Your task to perform on an android device: refresh tabs in the chrome app Image 0: 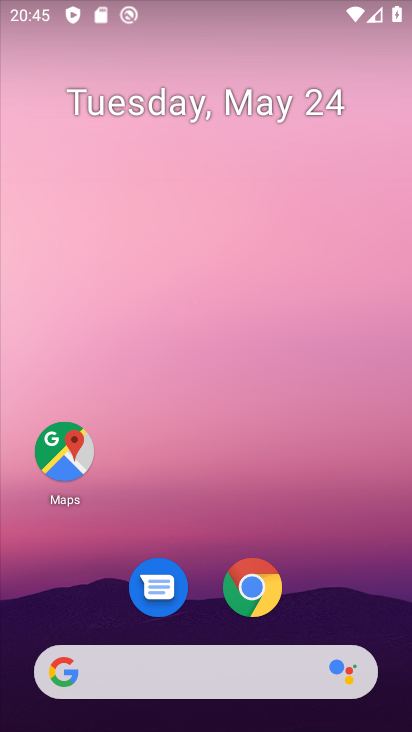
Step 0: drag from (308, 514) to (202, 21)
Your task to perform on an android device: refresh tabs in the chrome app Image 1: 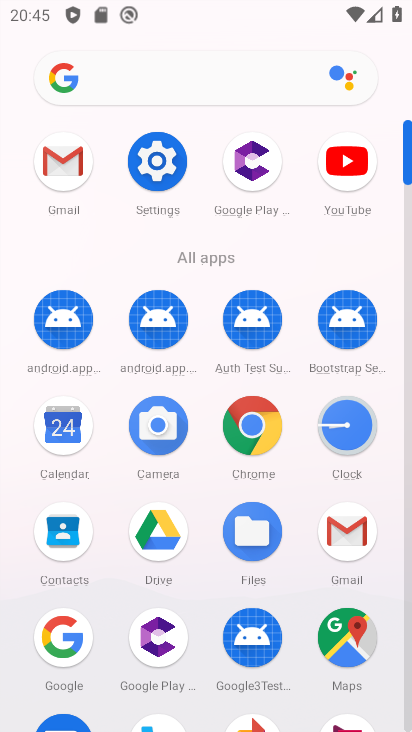
Step 1: drag from (22, 565) to (22, 259)
Your task to perform on an android device: refresh tabs in the chrome app Image 2: 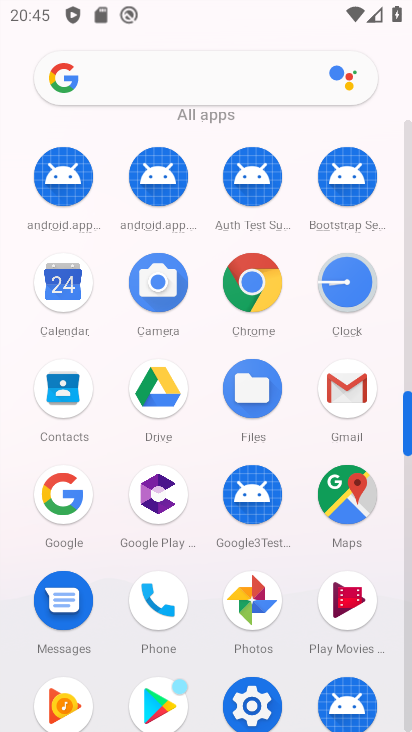
Step 2: click (249, 277)
Your task to perform on an android device: refresh tabs in the chrome app Image 3: 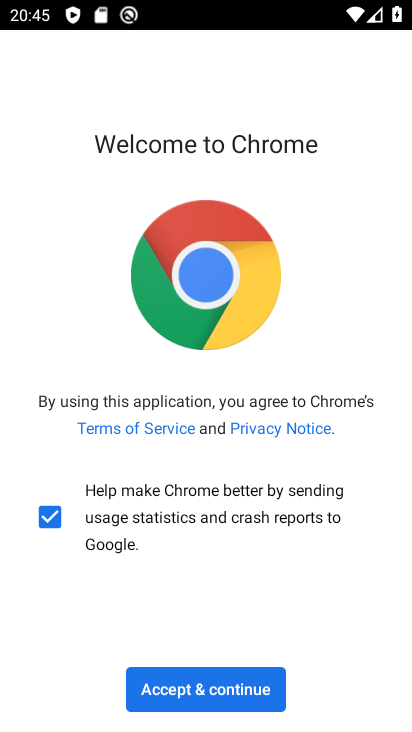
Step 3: click (233, 698)
Your task to perform on an android device: refresh tabs in the chrome app Image 4: 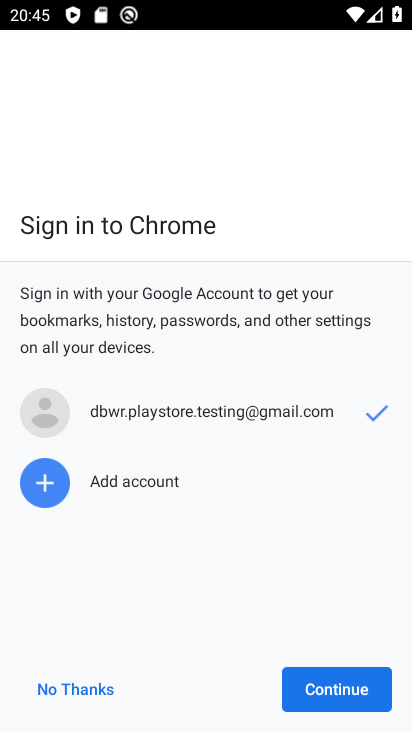
Step 4: click (317, 676)
Your task to perform on an android device: refresh tabs in the chrome app Image 5: 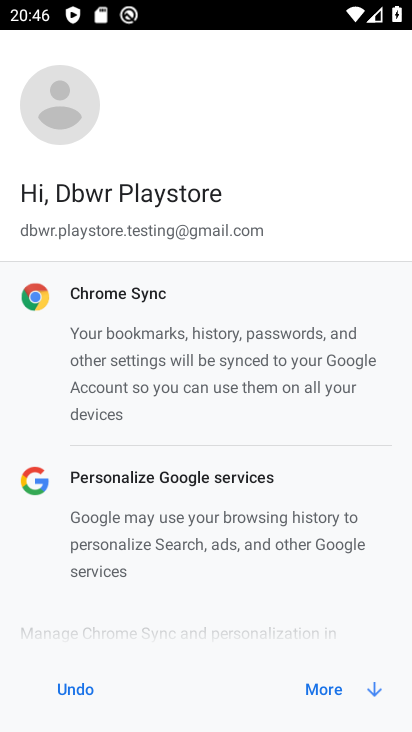
Step 5: click (310, 692)
Your task to perform on an android device: refresh tabs in the chrome app Image 6: 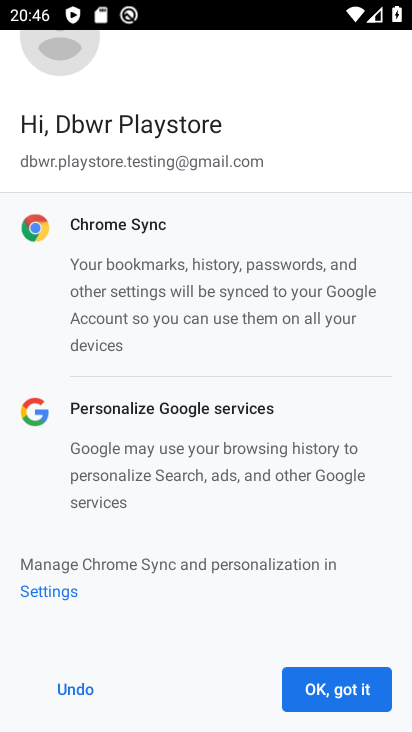
Step 6: click (343, 698)
Your task to perform on an android device: refresh tabs in the chrome app Image 7: 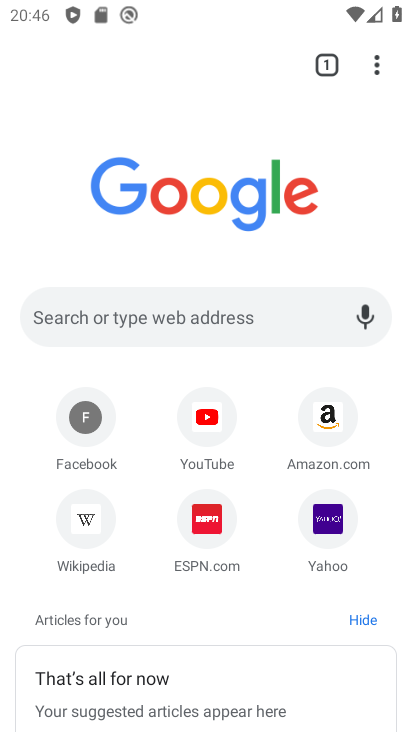
Step 7: click (374, 52)
Your task to perform on an android device: refresh tabs in the chrome app Image 8: 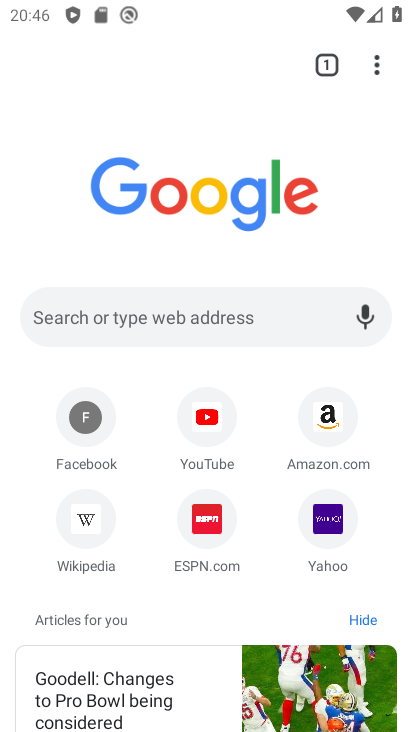
Step 8: click (372, 56)
Your task to perform on an android device: refresh tabs in the chrome app Image 9: 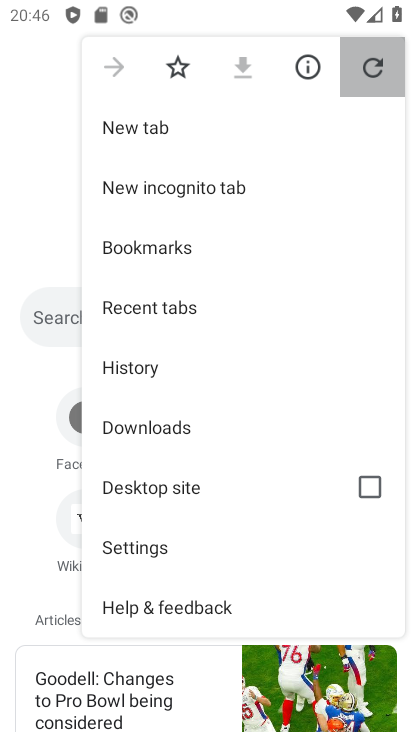
Step 9: click (372, 56)
Your task to perform on an android device: refresh tabs in the chrome app Image 10: 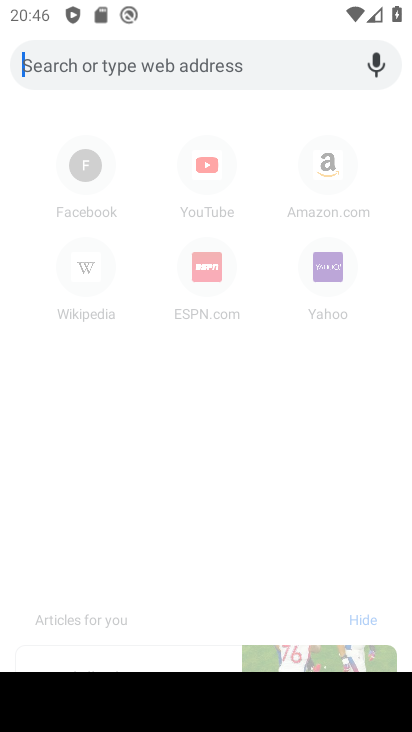
Step 10: click (372, 56)
Your task to perform on an android device: refresh tabs in the chrome app Image 11: 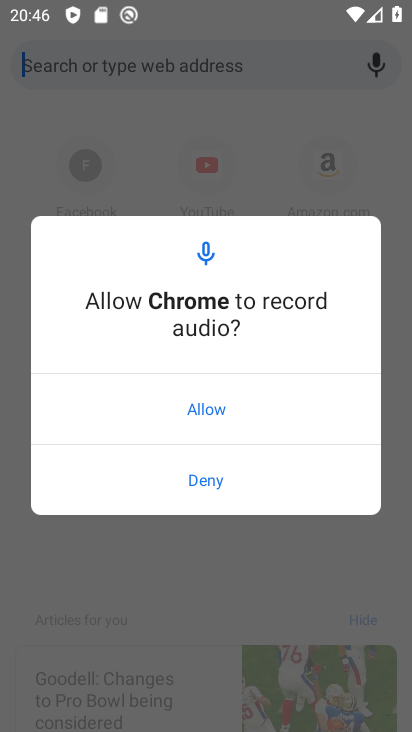
Step 11: click (149, 566)
Your task to perform on an android device: refresh tabs in the chrome app Image 12: 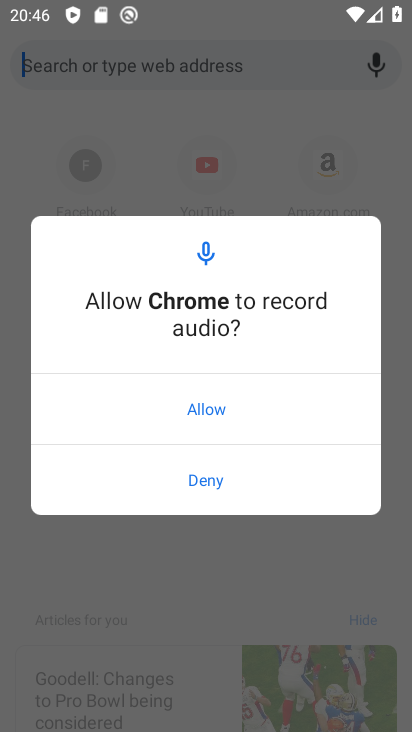
Step 12: task complete